Your task to perform on an android device: Open Wikipedia Image 0: 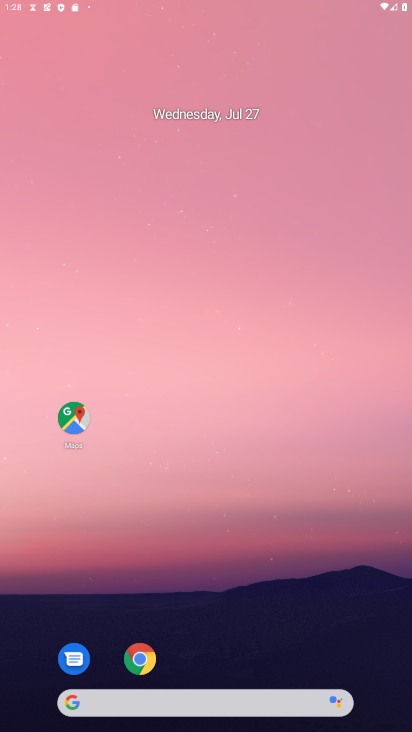
Step 0: press home button
Your task to perform on an android device: Open Wikipedia Image 1: 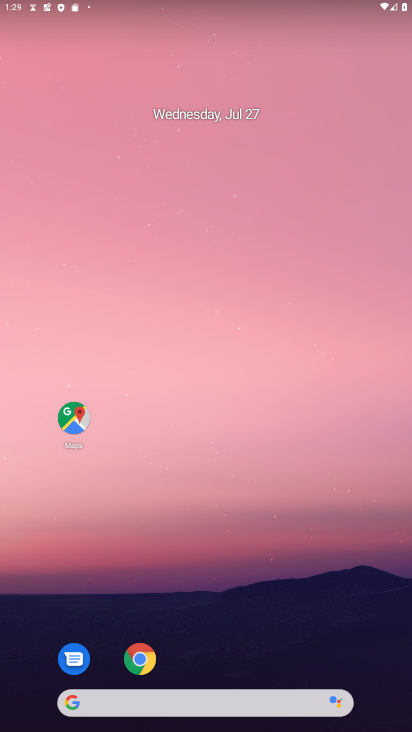
Step 1: drag from (204, 662) to (216, 37)
Your task to perform on an android device: Open Wikipedia Image 2: 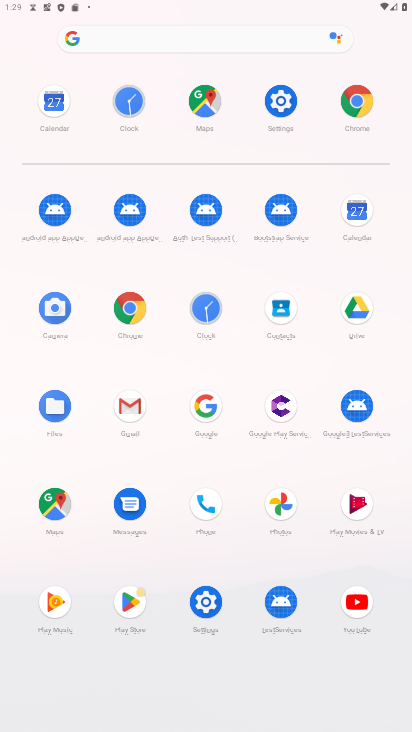
Step 2: click (131, 298)
Your task to perform on an android device: Open Wikipedia Image 3: 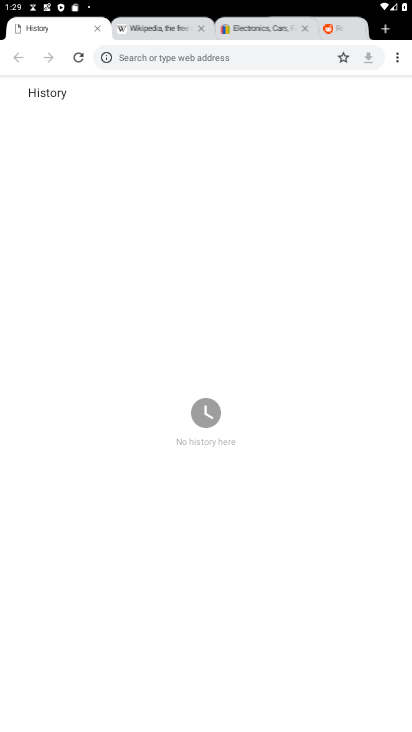
Step 3: click (137, 24)
Your task to perform on an android device: Open Wikipedia Image 4: 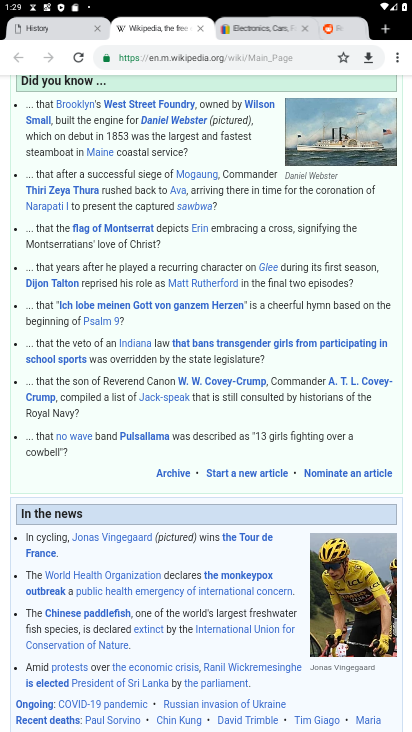
Step 4: task complete